Your task to perform on an android device: toggle improve location accuracy Image 0: 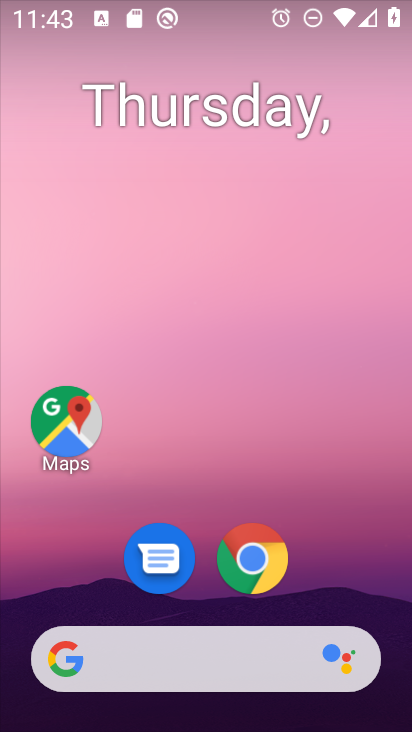
Step 0: drag from (394, 627) to (329, 102)
Your task to perform on an android device: toggle improve location accuracy Image 1: 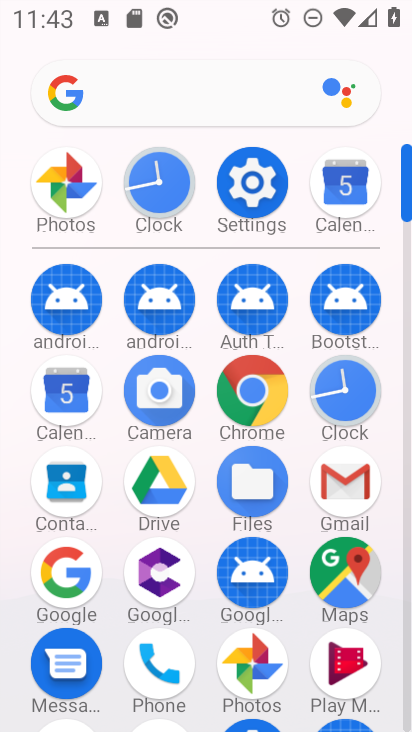
Step 1: click (408, 695)
Your task to perform on an android device: toggle improve location accuracy Image 2: 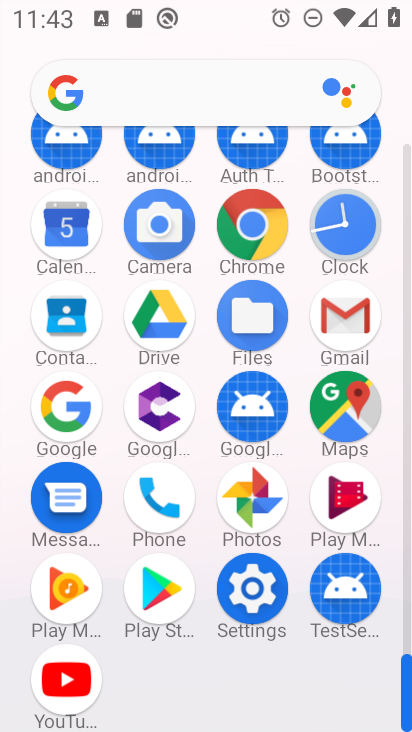
Step 2: click (252, 589)
Your task to perform on an android device: toggle improve location accuracy Image 3: 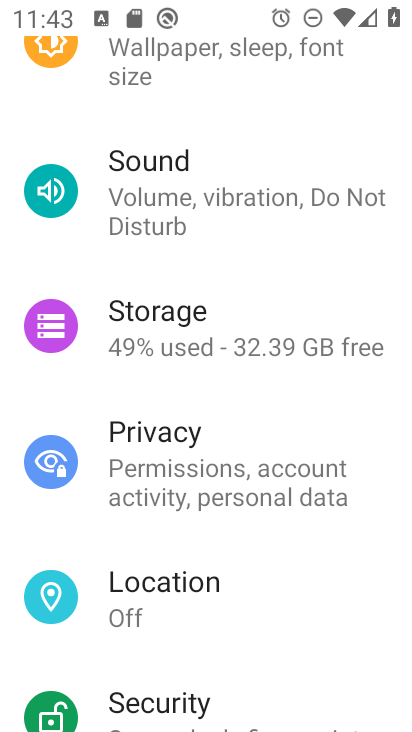
Step 3: click (144, 595)
Your task to perform on an android device: toggle improve location accuracy Image 4: 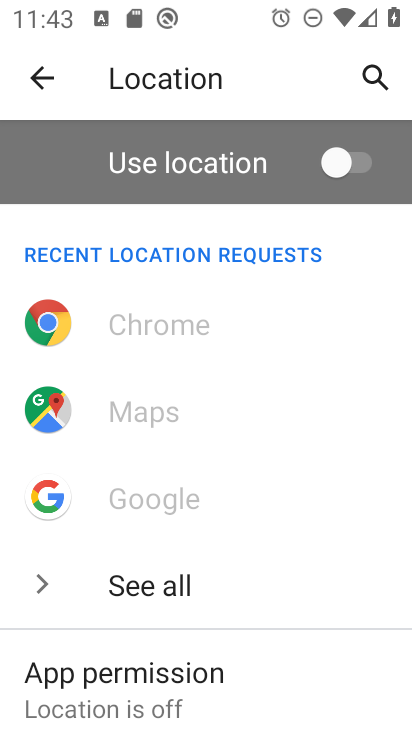
Step 4: drag from (276, 653) to (328, 284)
Your task to perform on an android device: toggle improve location accuracy Image 5: 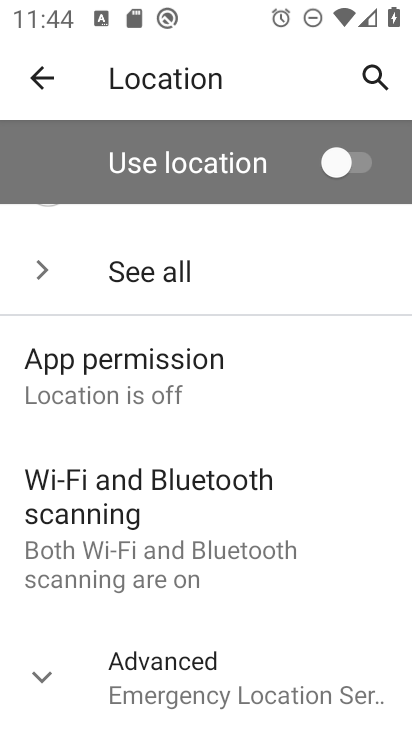
Step 5: click (38, 677)
Your task to perform on an android device: toggle improve location accuracy Image 6: 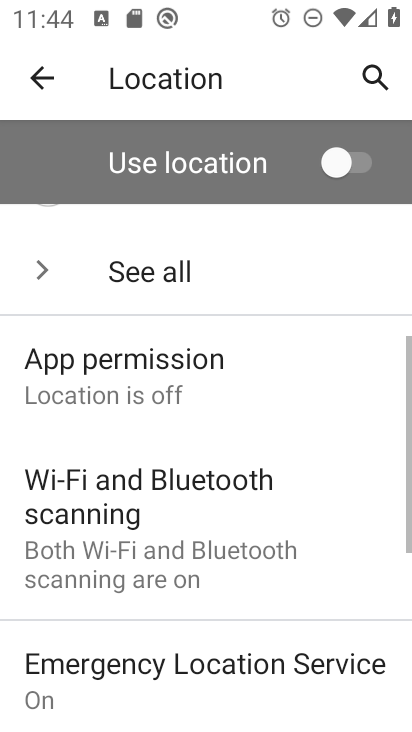
Step 6: drag from (336, 676) to (317, 307)
Your task to perform on an android device: toggle improve location accuracy Image 7: 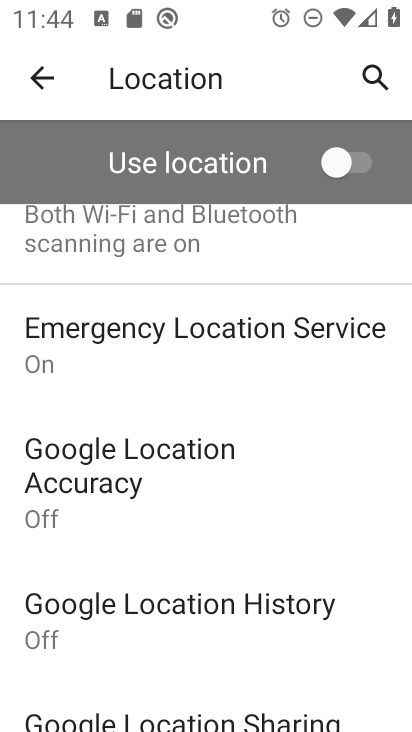
Step 7: click (52, 458)
Your task to perform on an android device: toggle improve location accuracy Image 8: 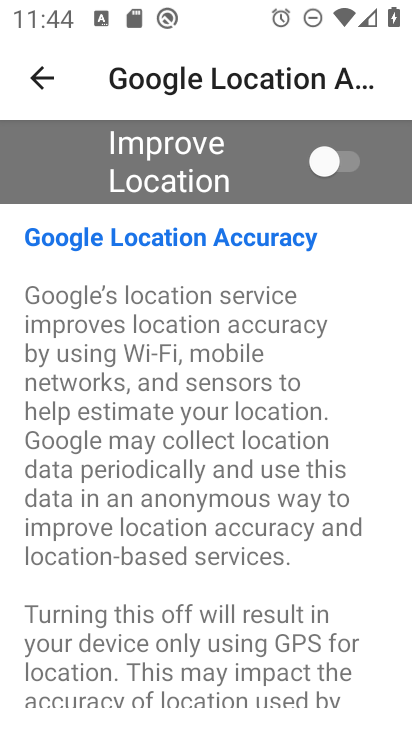
Step 8: click (348, 161)
Your task to perform on an android device: toggle improve location accuracy Image 9: 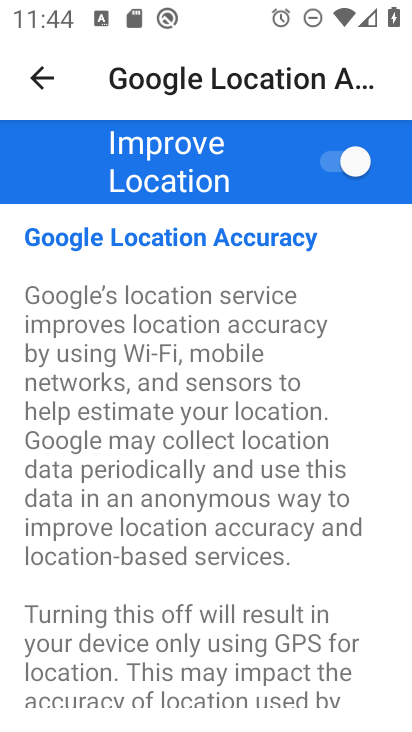
Step 9: task complete